Your task to perform on an android device: Go to Google maps Image 0: 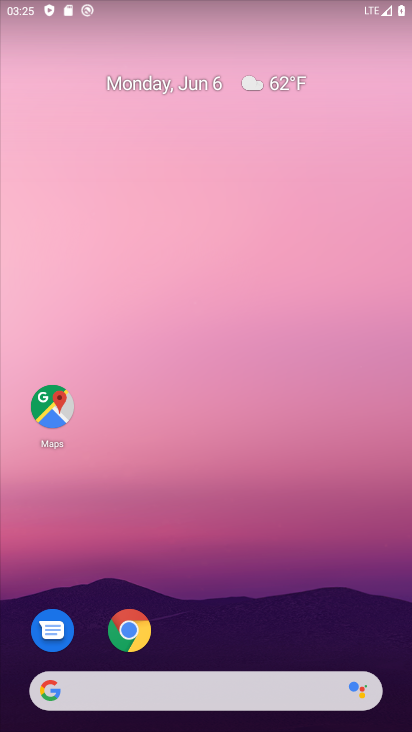
Step 0: click (48, 418)
Your task to perform on an android device: Go to Google maps Image 1: 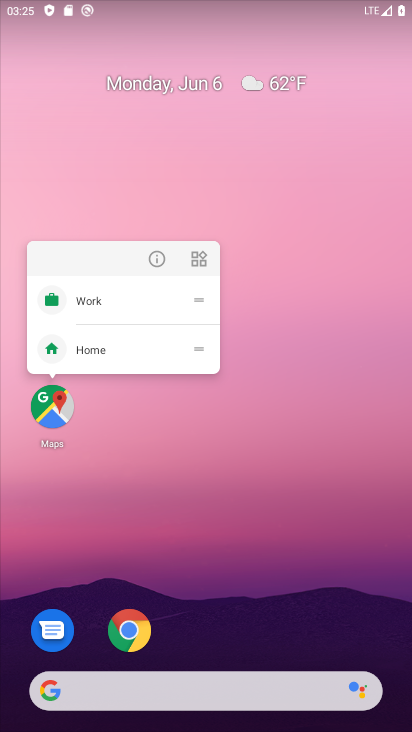
Step 1: click (48, 418)
Your task to perform on an android device: Go to Google maps Image 2: 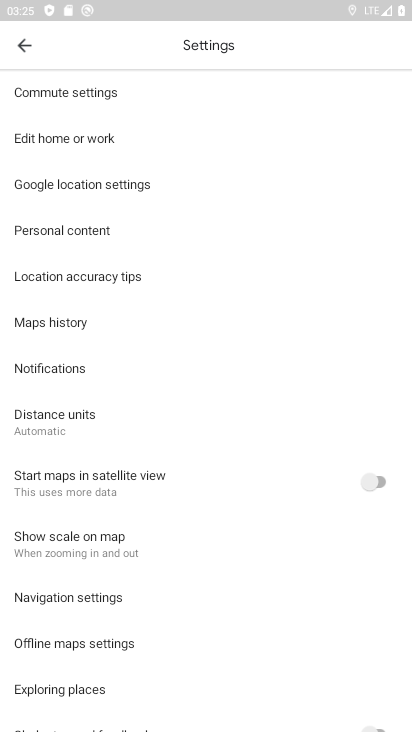
Step 2: task complete